Your task to perform on an android device: Turn off the flashlight Image 0: 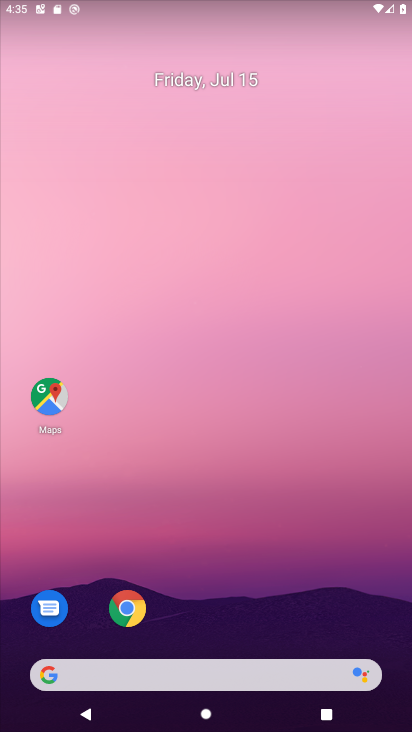
Step 0: drag from (277, 652) to (197, 79)
Your task to perform on an android device: Turn off the flashlight Image 1: 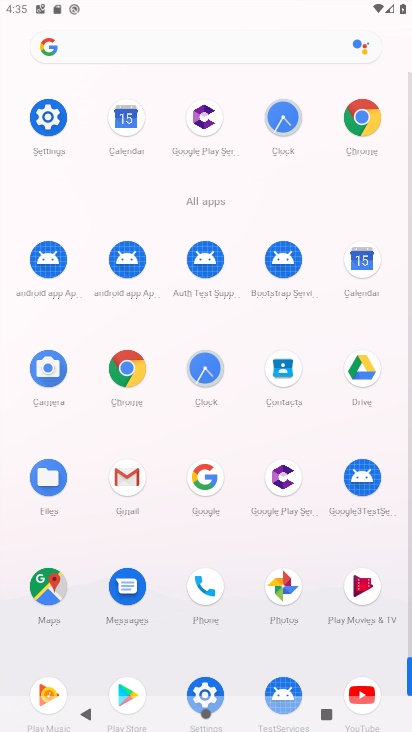
Step 1: task complete